Your task to perform on an android device: open a bookmark in the chrome app Image 0: 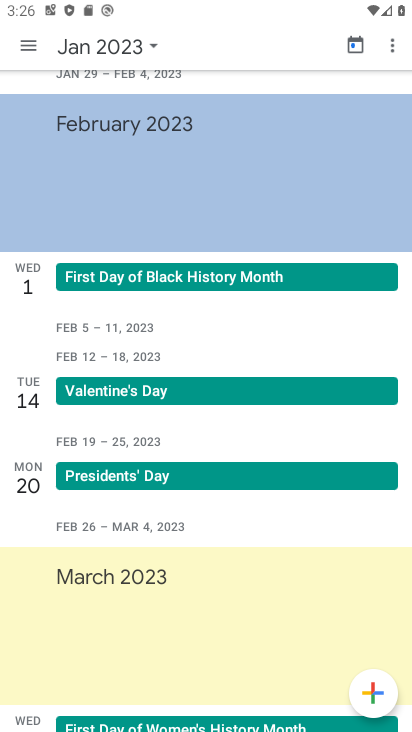
Step 0: press home button
Your task to perform on an android device: open a bookmark in the chrome app Image 1: 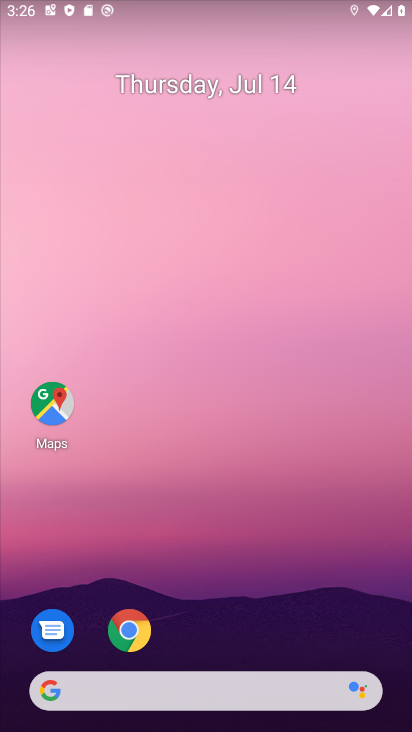
Step 1: click (138, 630)
Your task to perform on an android device: open a bookmark in the chrome app Image 2: 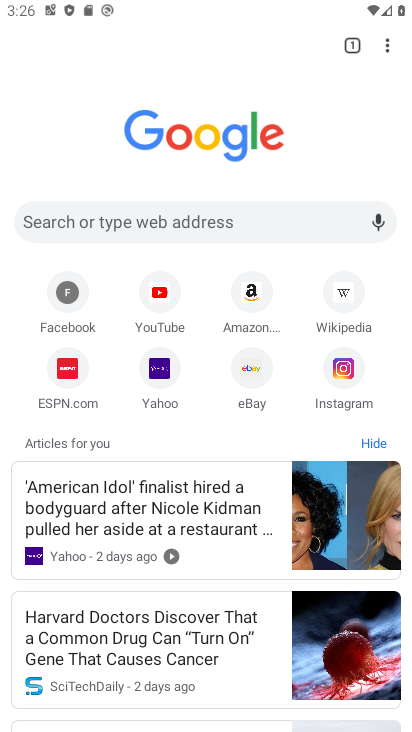
Step 2: click (386, 38)
Your task to perform on an android device: open a bookmark in the chrome app Image 3: 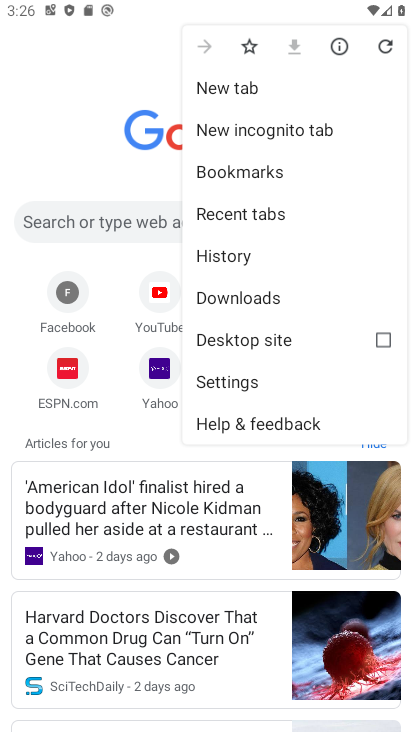
Step 3: click (294, 174)
Your task to perform on an android device: open a bookmark in the chrome app Image 4: 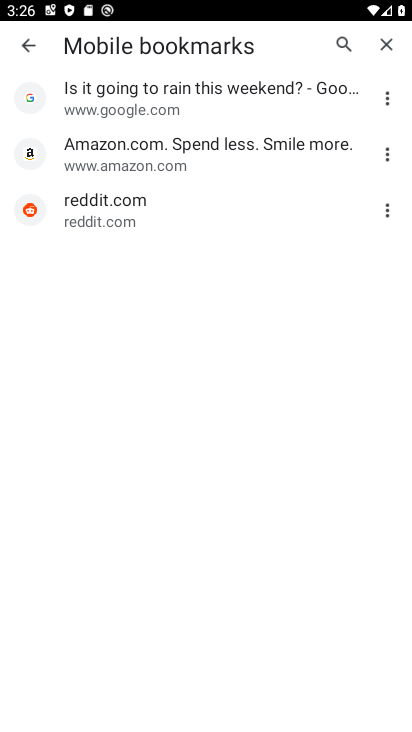
Step 4: click (202, 145)
Your task to perform on an android device: open a bookmark in the chrome app Image 5: 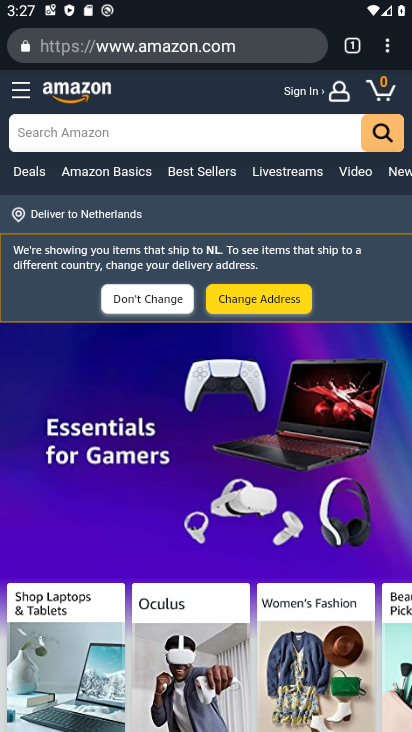
Step 5: task complete